Your task to perform on an android device: When is my next appointment? Image 0: 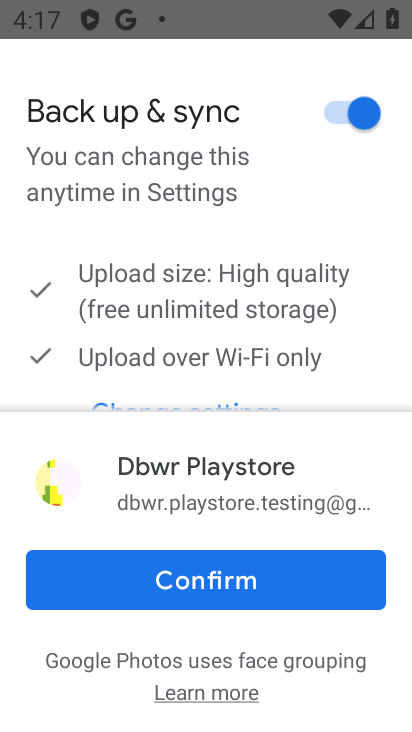
Step 0: press home button
Your task to perform on an android device: When is my next appointment? Image 1: 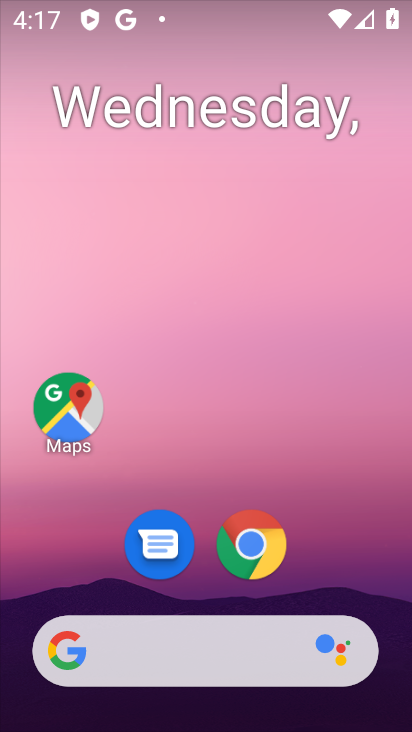
Step 1: drag from (367, 543) to (327, 178)
Your task to perform on an android device: When is my next appointment? Image 2: 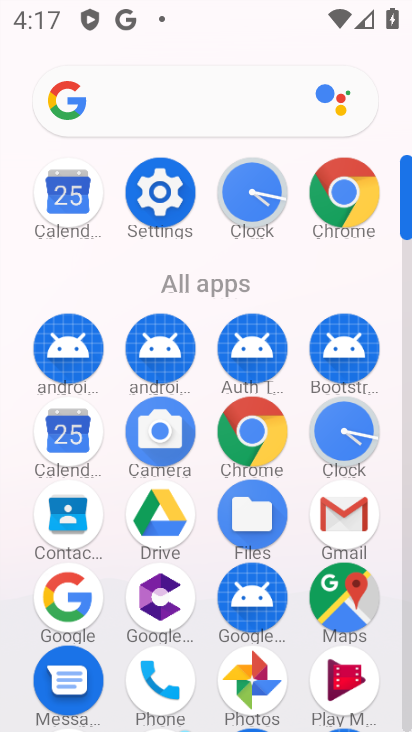
Step 2: click (85, 448)
Your task to perform on an android device: When is my next appointment? Image 3: 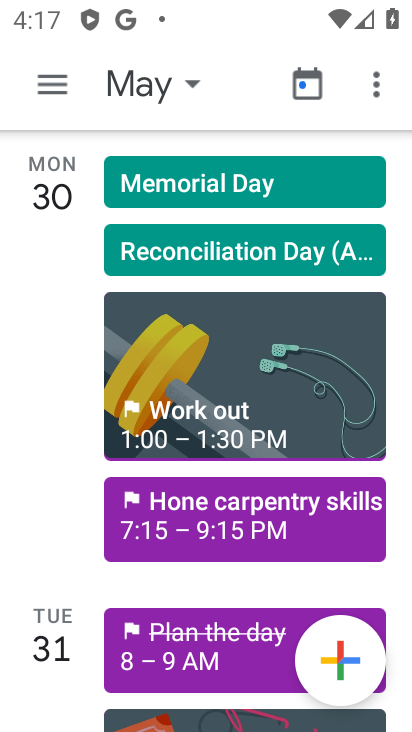
Step 3: drag from (218, 179) to (235, 345)
Your task to perform on an android device: When is my next appointment? Image 4: 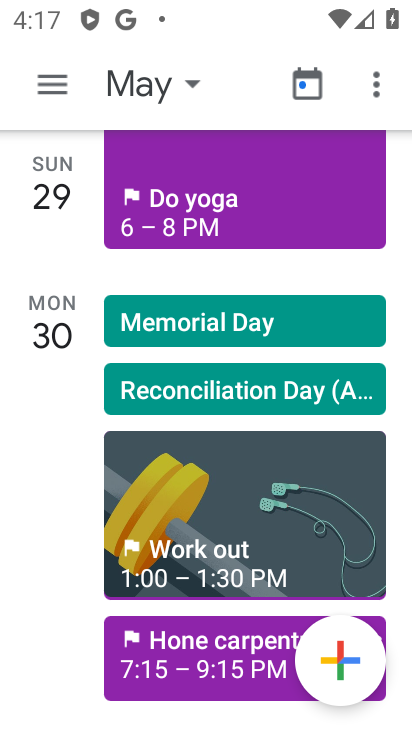
Step 4: drag from (223, 179) to (236, 386)
Your task to perform on an android device: When is my next appointment? Image 5: 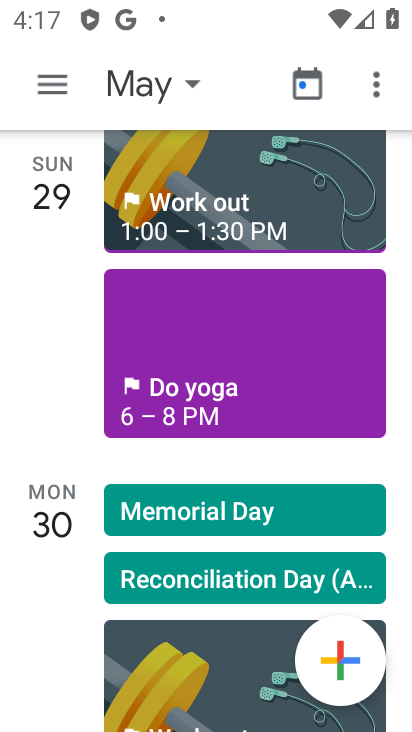
Step 5: drag from (211, 181) to (216, 405)
Your task to perform on an android device: When is my next appointment? Image 6: 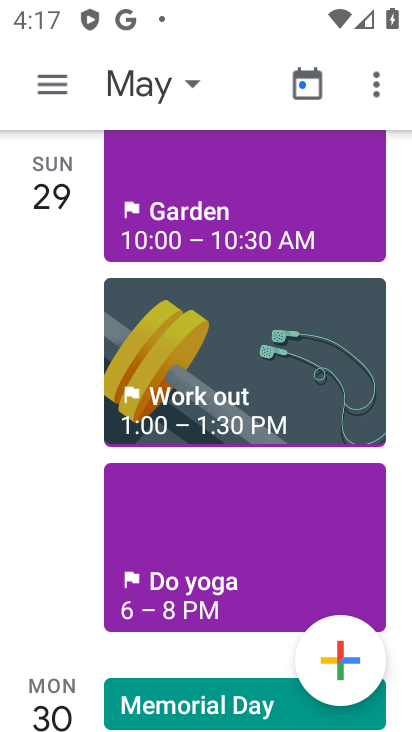
Step 6: drag from (228, 208) to (249, 409)
Your task to perform on an android device: When is my next appointment? Image 7: 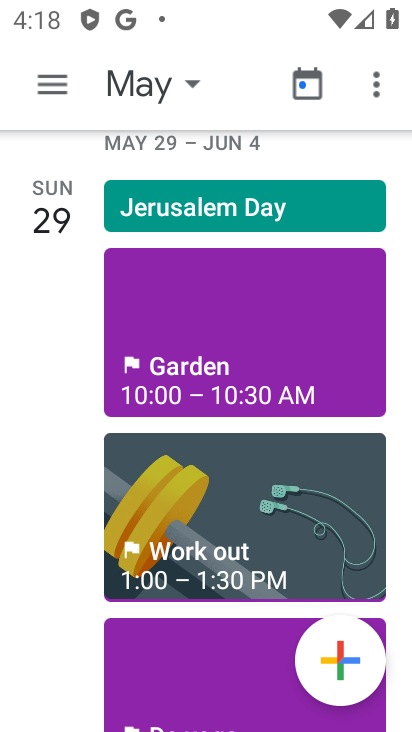
Step 7: drag from (230, 183) to (227, 343)
Your task to perform on an android device: When is my next appointment? Image 8: 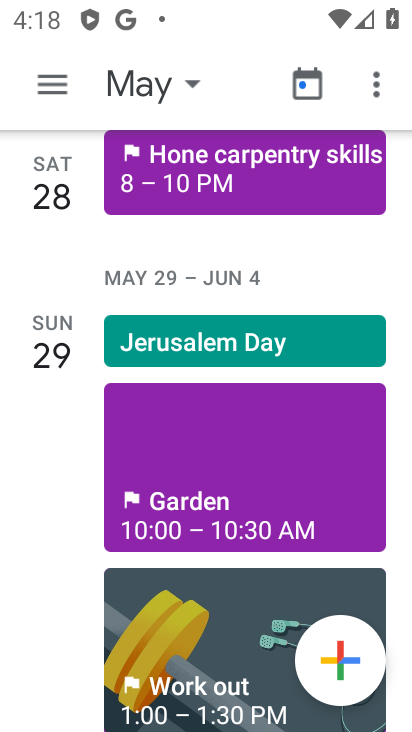
Step 8: drag from (216, 248) to (207, 331)
Your task to perform on an android device: When is my next appointment? Image 9: 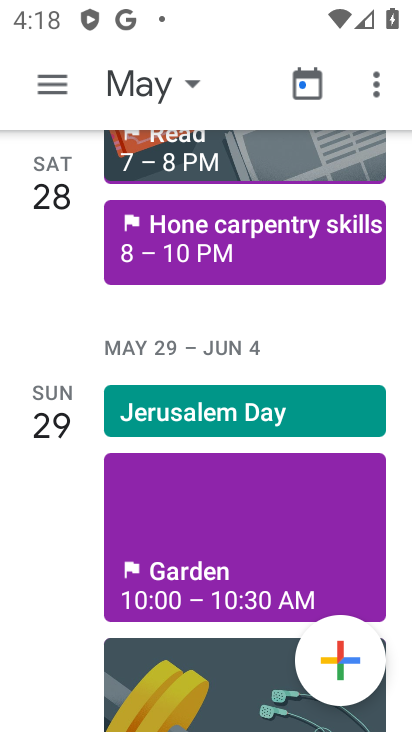
Step 9: drag from (218, 156) to (217, 327)
Your task to perform on an android device: When is my next appointment? Image 10: 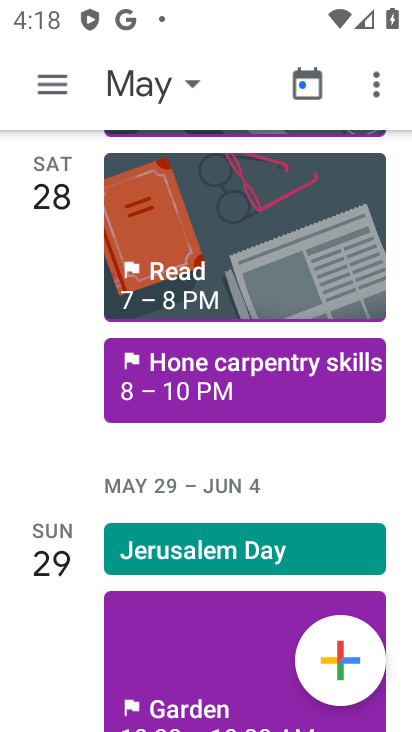
Step 10: drag from (205, 193) to (184, 367)
Your task to perform on an android device: When is my next appointment? Image 11: 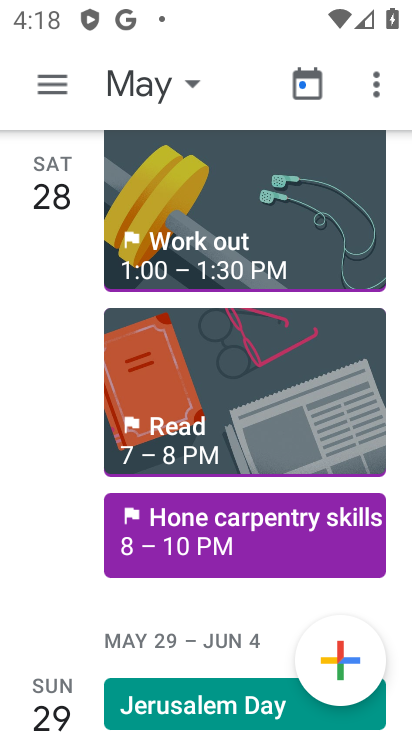
Step 11: drag from (193, 189) to (203, 339)
Your task to perform on an android device: When is my next appointment? Image 12: 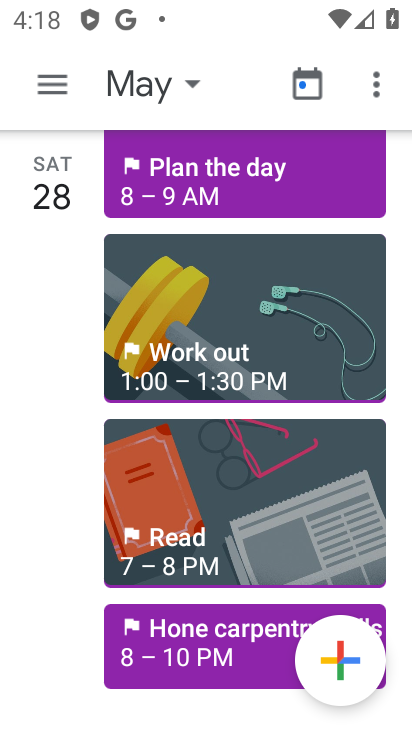
Step 12: drag from (219, 172) to (216, 326)
Your task to perform on an android device: When is my next appointment? Image 13: 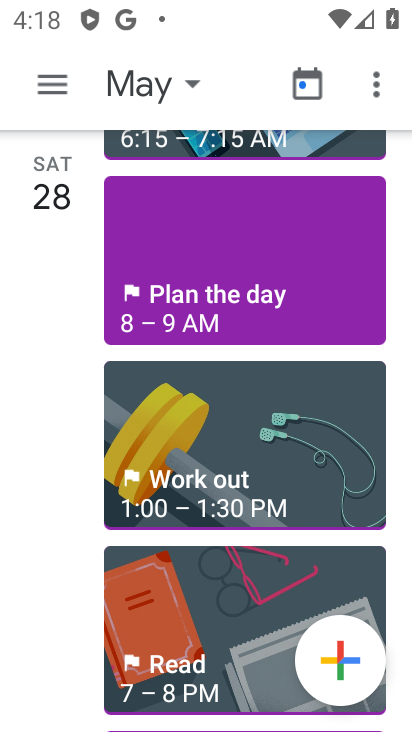
Step 13: click (215, 261)
Your task to perform on an android device: When is my next appointment? Image 14: 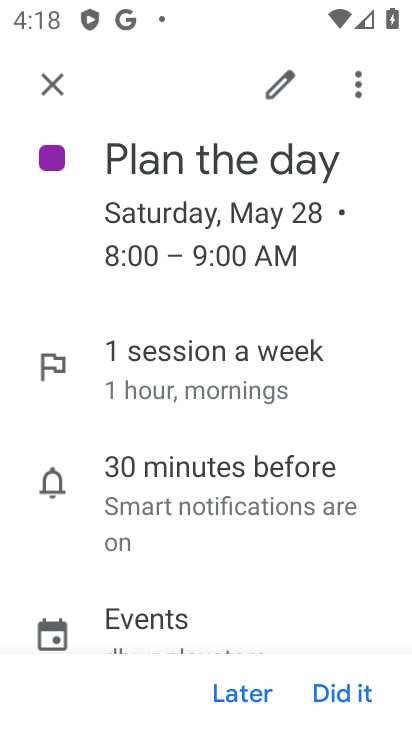
Step 14: task complete